Your task to perform on an android device: Open Youtube and go to the subscriptions tab Image 0: 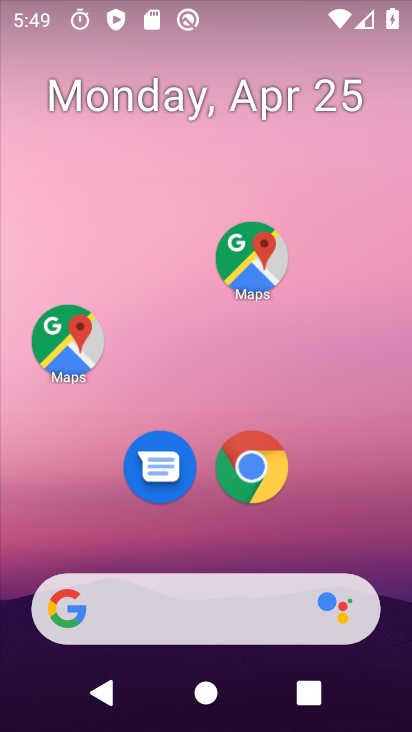
Step 0: drag from (291, 500) to (272, 11)
Your task to perform on an android device: Open Youtube and go to the subscriptions tab Image 1: 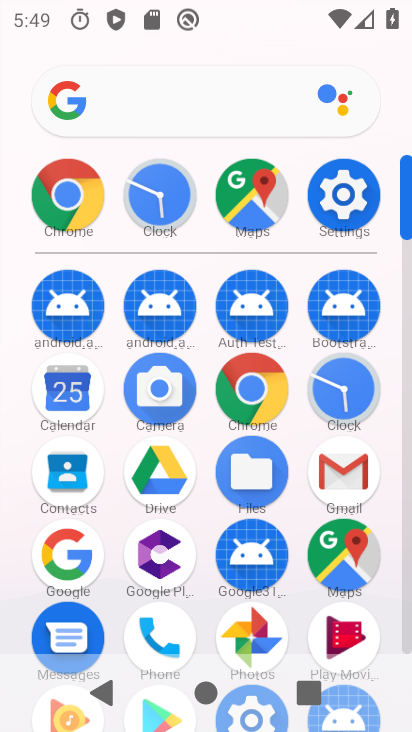
Step 1: drag from (299, 652) to (296, 7)
Your task to perform on an android device: Open Youtube and go to the subscriptions tab Image 2: 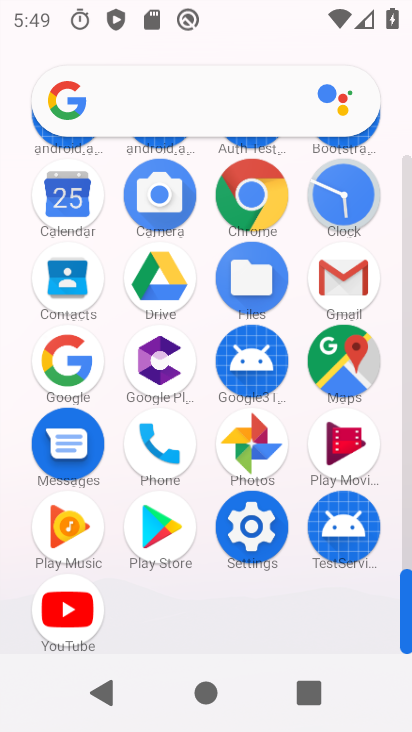
Step 2: click (79, 590)
Your task to perform on an android device: Open Youtube and go to the subscriptions tab Image 3: 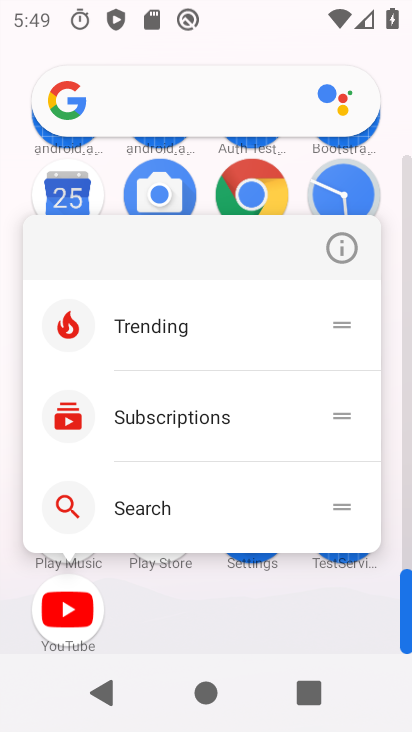
Step 3: click (78, 622)
Your task to perform on an android device: Open Youtube and go to the subscriptions tab Image 4: 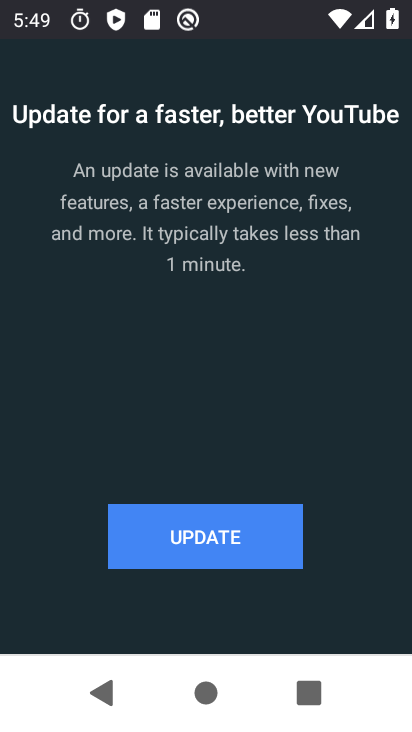
Step 4: click (253, 528)
Your task to perform on an android device: Open Youtube and go to the subscriptions tab Image 5: 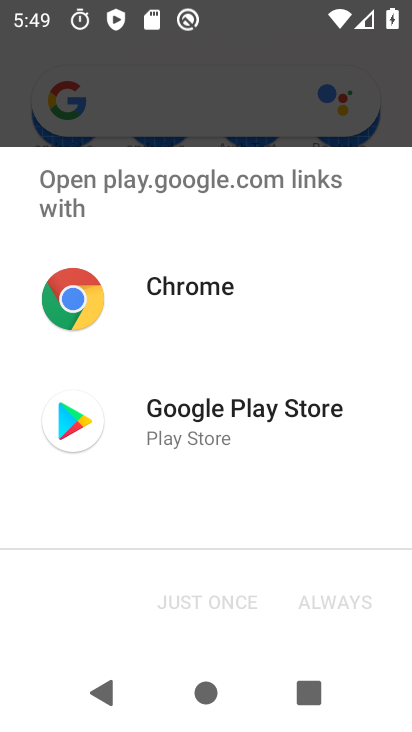
Step 5: click (216, 437)
Your task to perform on an android device: Open Youtube and go to the subscriptions tab Image 6: 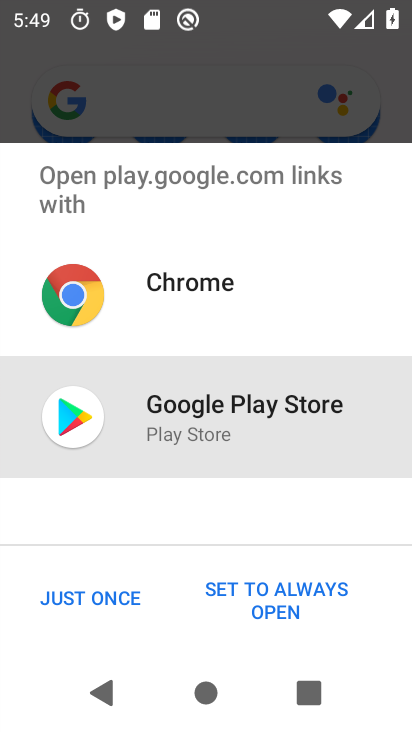
Step 6: click (128, 604)
Your task to perform on an android device: Open Youtube and go to the subscriptions tab Image 7: 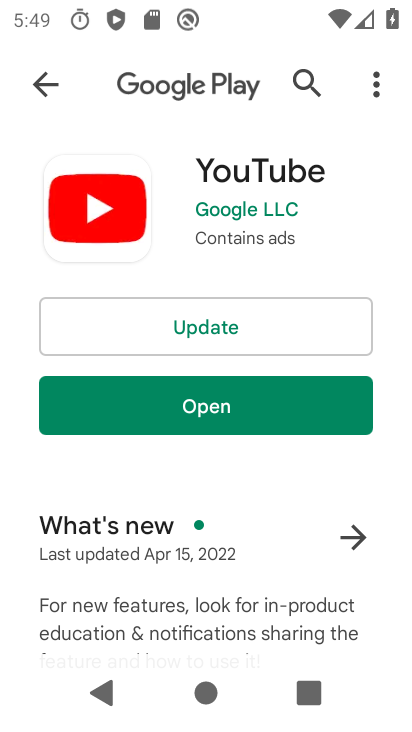
Step 7: click (211, 322)
Your task to perform on an android device: Open Youtube and go to the subscriptions tab Image 8: 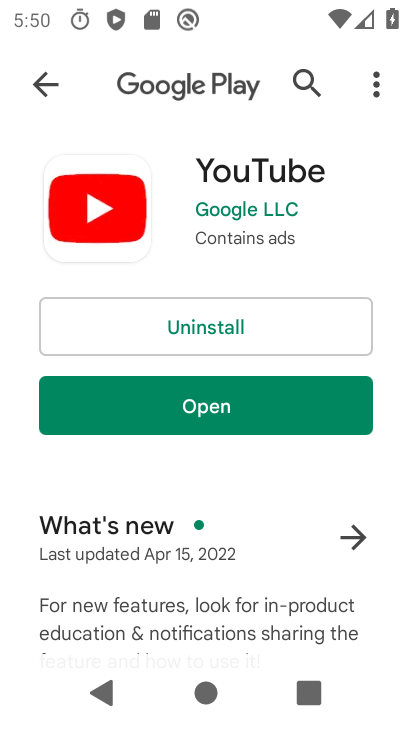
Step 8: click (233, 413)
Your task to perform on an android device: Open Youtube and go to the subscriptions tab Image 9: 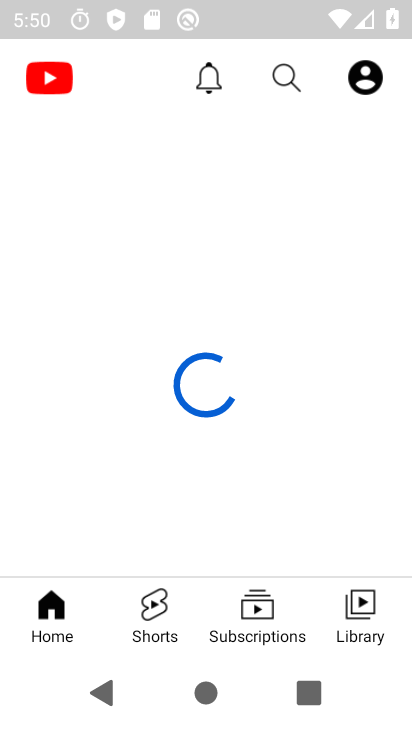
Step 9: click (261, 618)
Your task to perform on an android device: Open Youtube and go to the subscriptions tab Image 10: 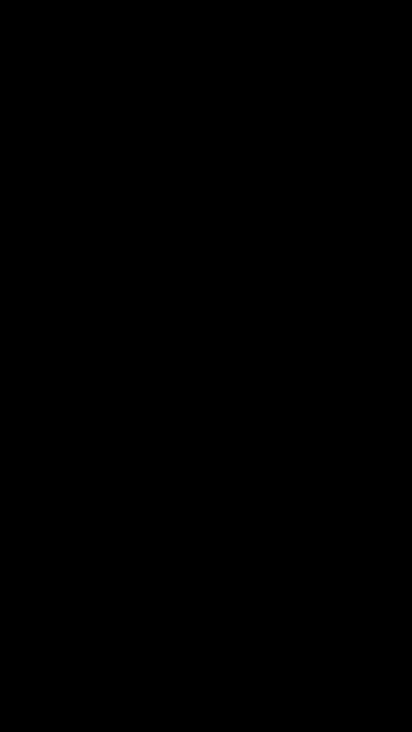
Step 10: task complete